Your task to perform on an android device: Open location settings Image 0: 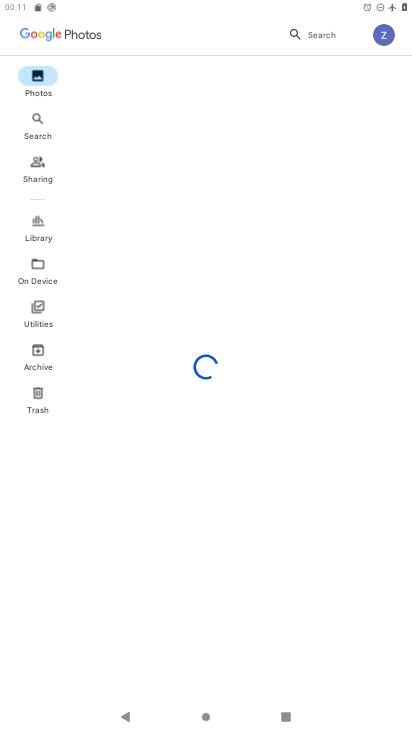
Step 0: drag from (192, 593) to (270, 138)
Your task to perform on an android device: Open location settings Image 1: 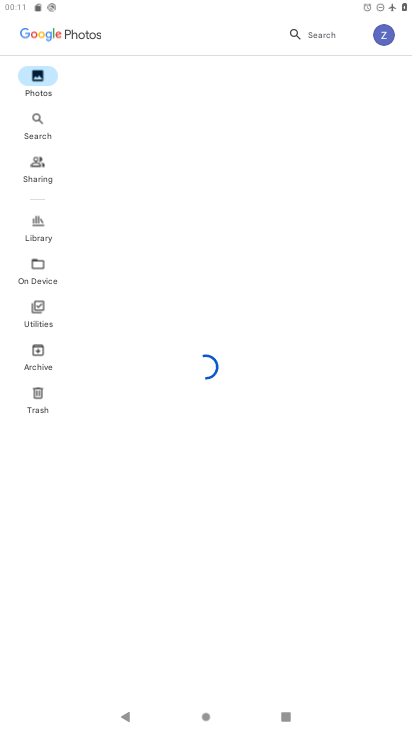
Step 1: press home button
Your task to perform on an android device: Open location settings Image 2: 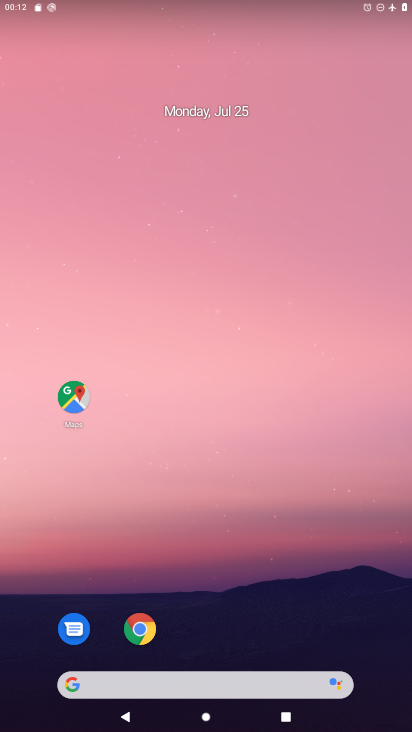
Step 2: drag from (199, 664) to (290, 89)
Your task to perform on an android device: Open location settings Image 3: 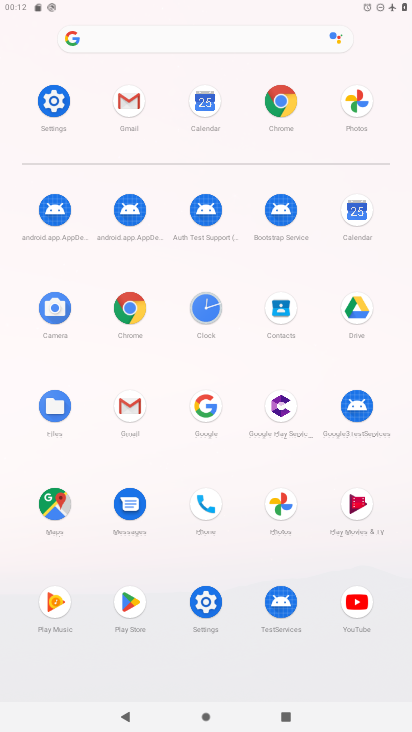
Step 3: click (194, 587)
Your task to perform on an android device: Open location settings Image 4: 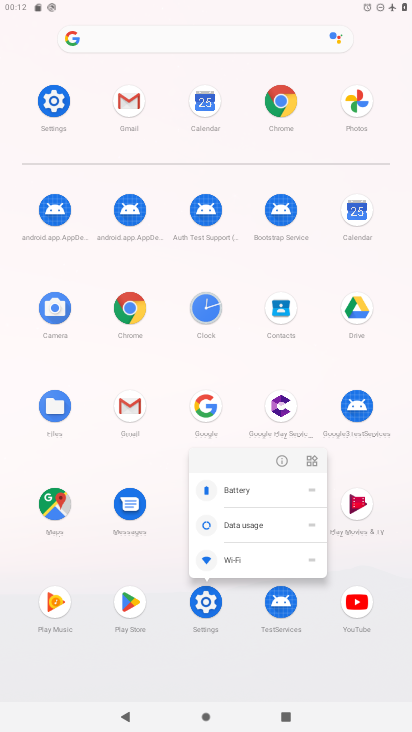
Step 4: click (282, 451)
Your task to perform on an android device: Open location settings Image 5: 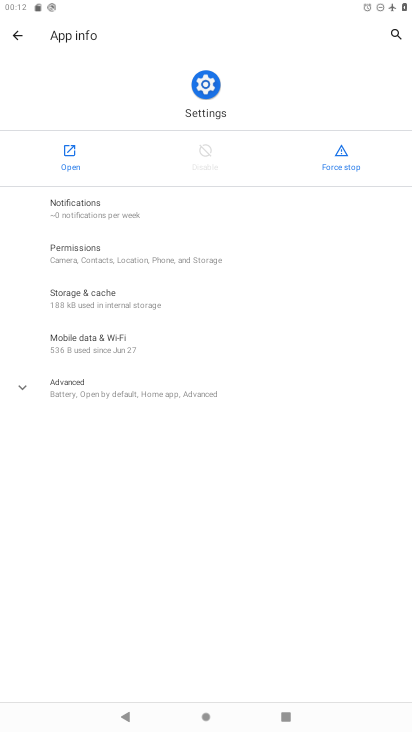
Step 5: click (70, 151)
Your task to perform on an android device: Open location settings Image 6: 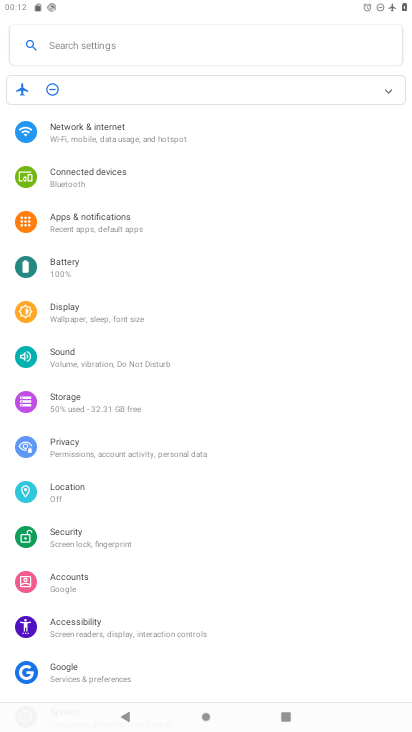
Step 6: click (107, 484)
Your task to perform on an android device: Open location settings Image 7: 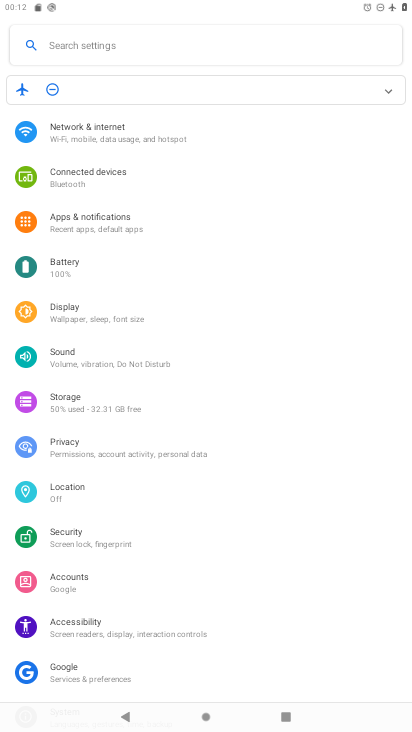
Step 7: click (106, 483)
Your task to perform on an android device: Open location settings Image 8: 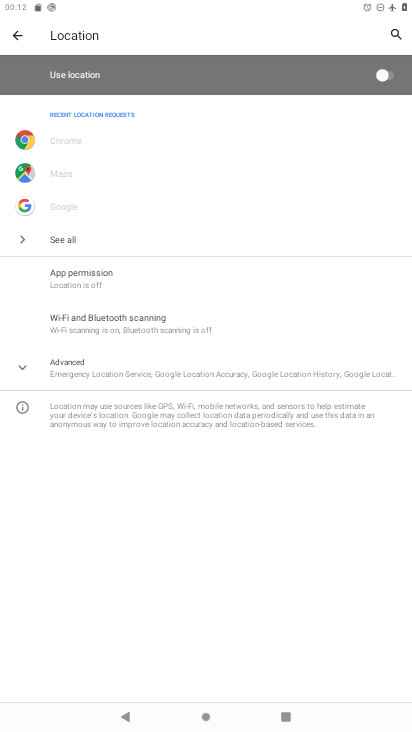
Step 8: task complete